Your task to perform on an android device: turn on showing notifications on the lock screen Image 0: 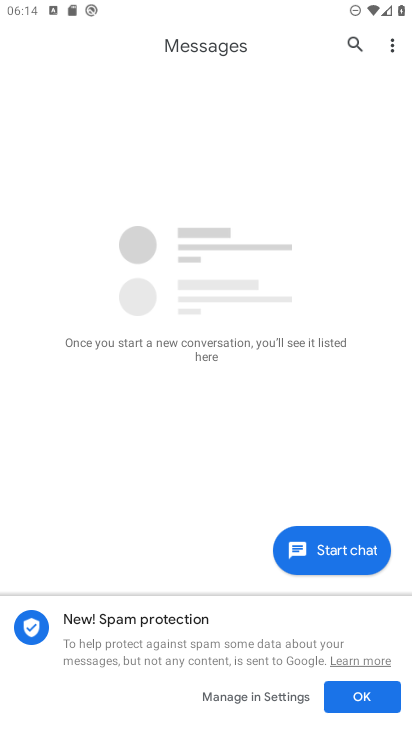
Step 0: press home button
Your task to perform on an android device: turn on showing notifications on the lock screen Image 1: 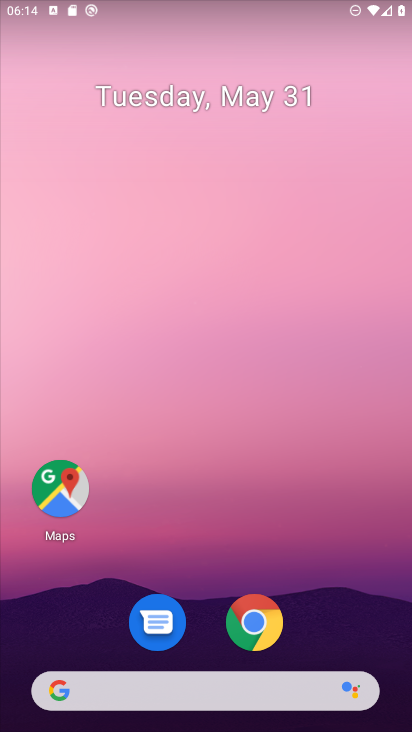
Step 1: drag from (275, 694) to (379, 105)
Your task to perform on an android device: turn on showing notifications on the lock screen Image 2: 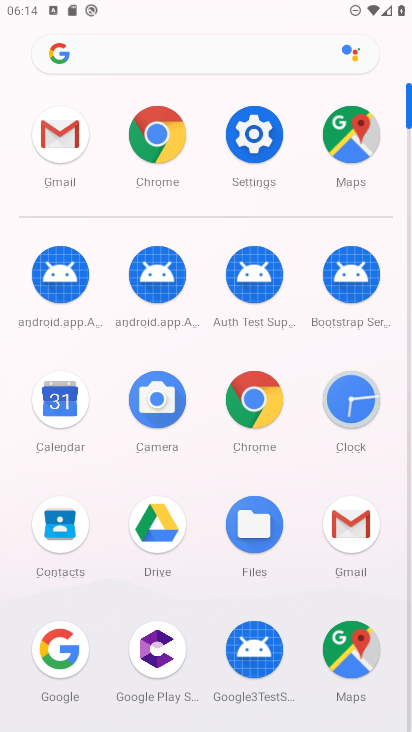
Step 2: click (252, 137)
Your task to perform on an android device: turn on showing notifications on the lock screen Image 3: 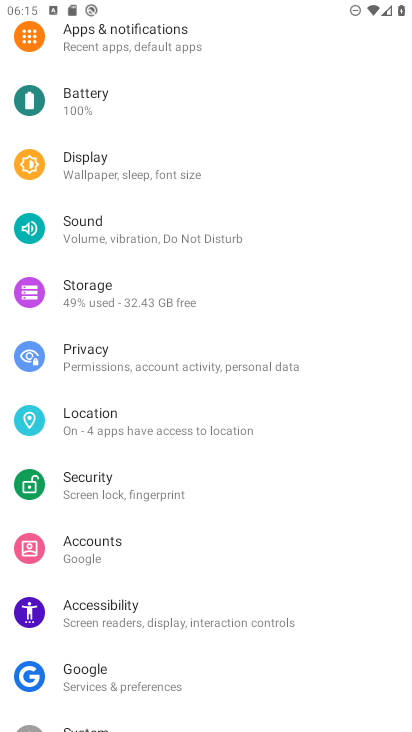
Step 3: click (268, 44)
Your task to perform on an android device: turn on showing notifications on the lock screen Image 4: 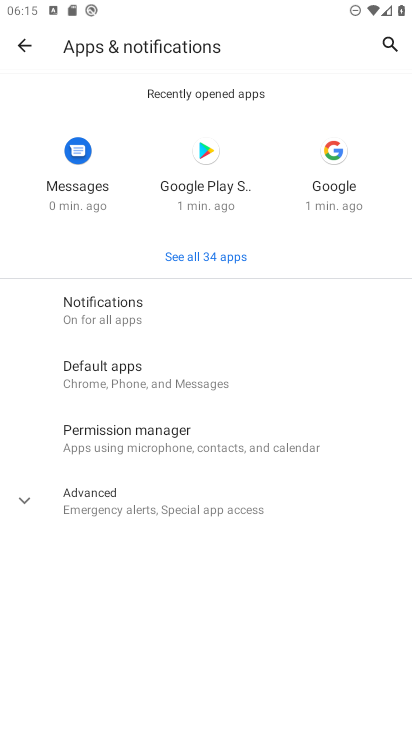
Step 4: click (159, 311)
Your task to perform on an android device: turn on showing notifications on the lock screen Image 5: 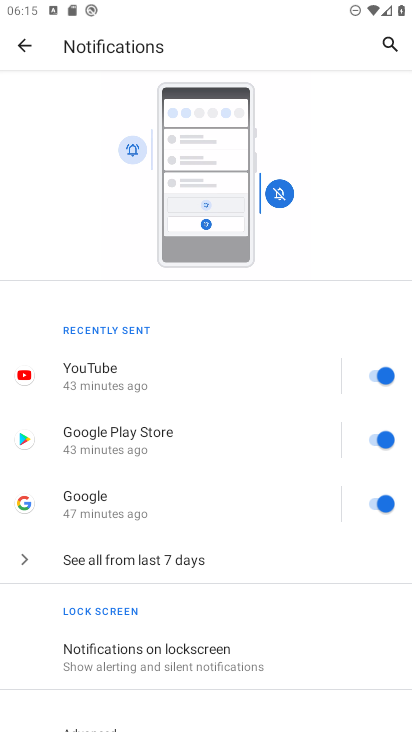
Step 5: click (187, 659)
Your task to perform on an android device: turn on showing notifications on the lock screen Image 6: 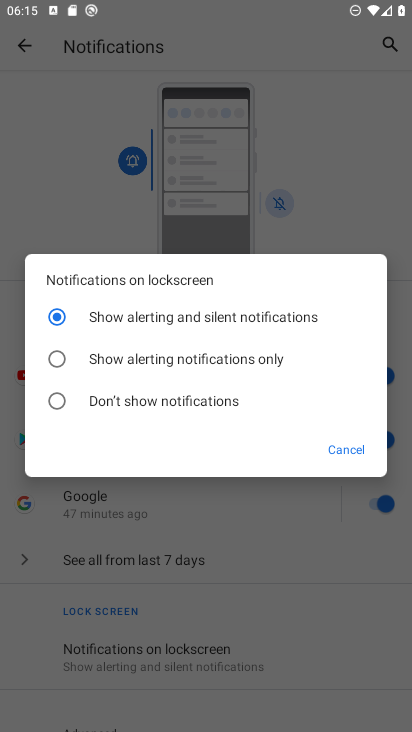
Step 6: task complete